Your task to perform on an android device: open a bookmark in the chrome app Image 0: 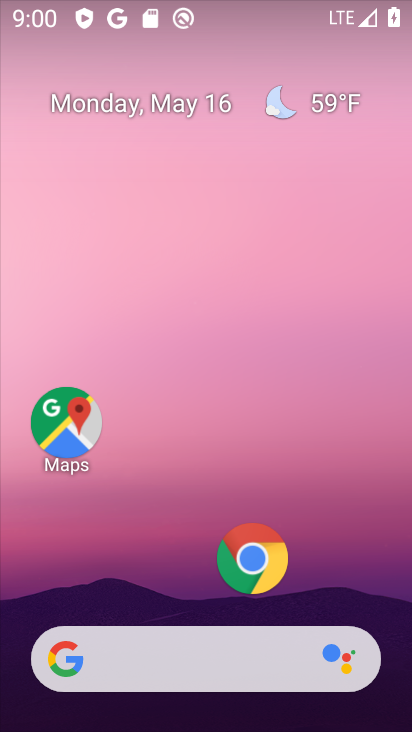
Step 0: click (245, 568)
Your task to perform on an android device: open a bookmark in the chrome app Image 1: 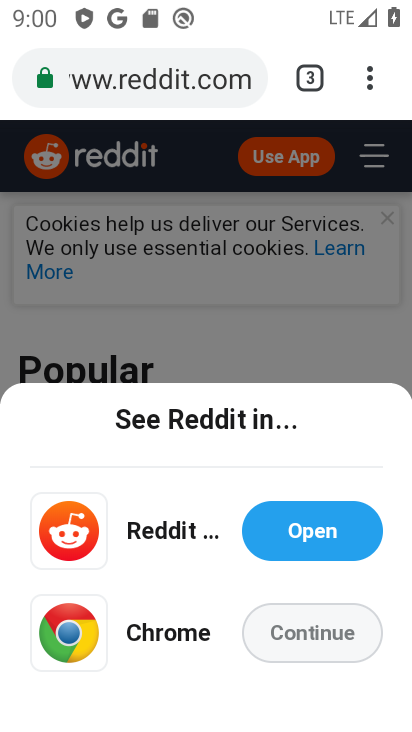
Step 1: drag from (367, 79) to (77, 300)
Your task to perform on an android device: open a bookmark in the chrome app Image 2: 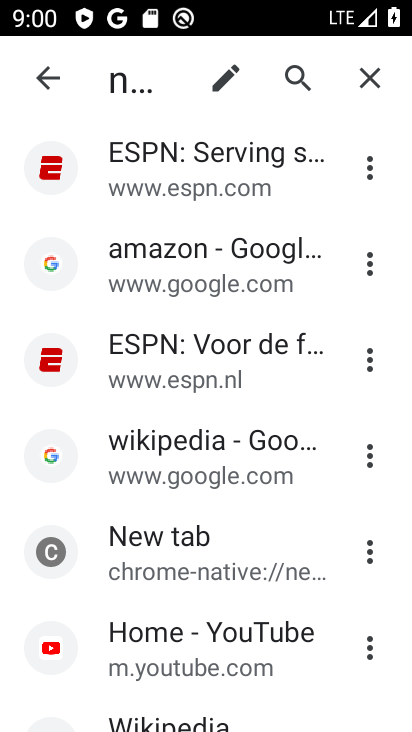
Step 2: click (161, 173)
Your task to perform on an android device: open a bookmark in the chrome app Image 3: 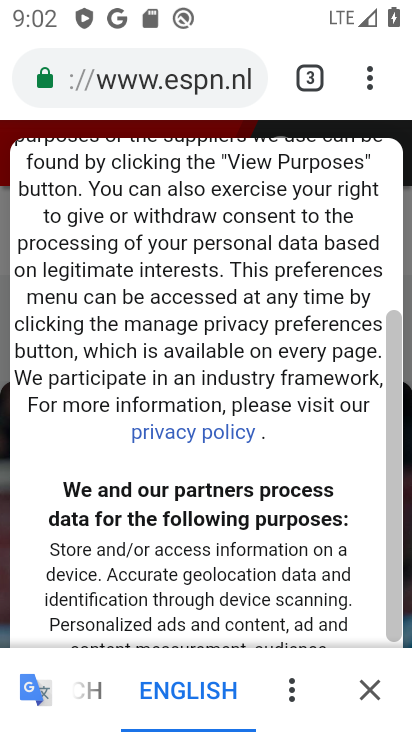
Step 3: task complete